Your task to perform on an android device: check storage Image 0: 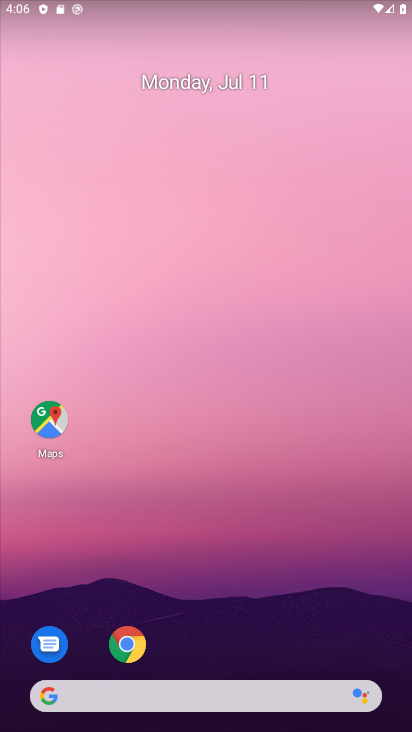
Step 0: drag from (193, 643) to (155, 77)
Your task to perform on an android device: check storage Image 1: 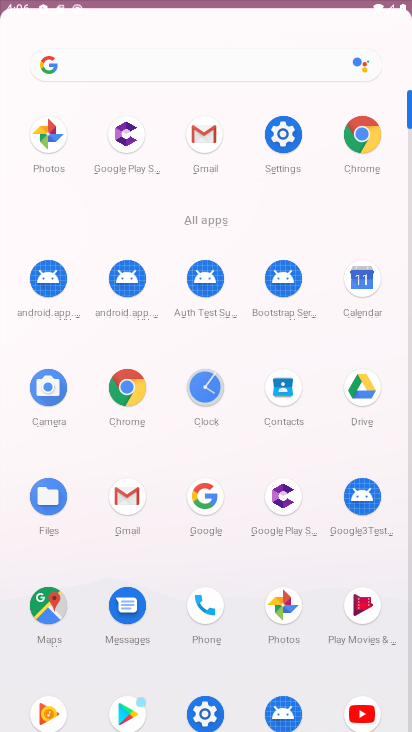
Step 1: click (322, 128)
Your task to perform on an android device: check storage Image 2: 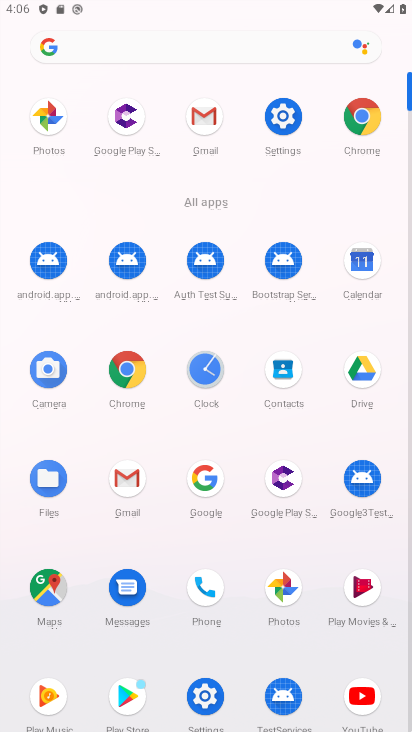
Step 2: click (295, 128)
Your task to perform on an android device: check storage Image 3: 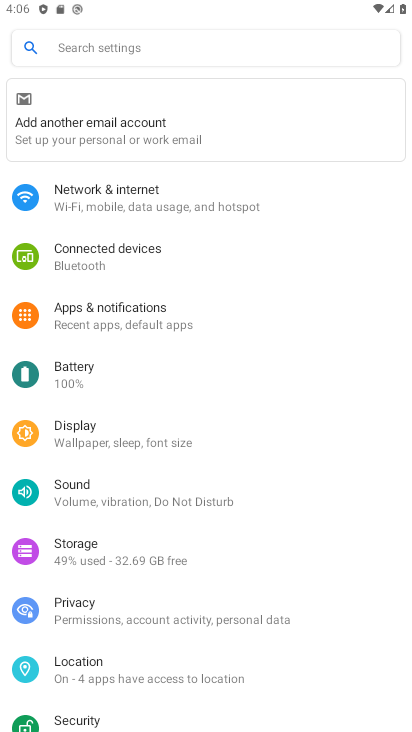
Step 3: click (125, 557)
Your task to perform on an android device: check storage Image 4: 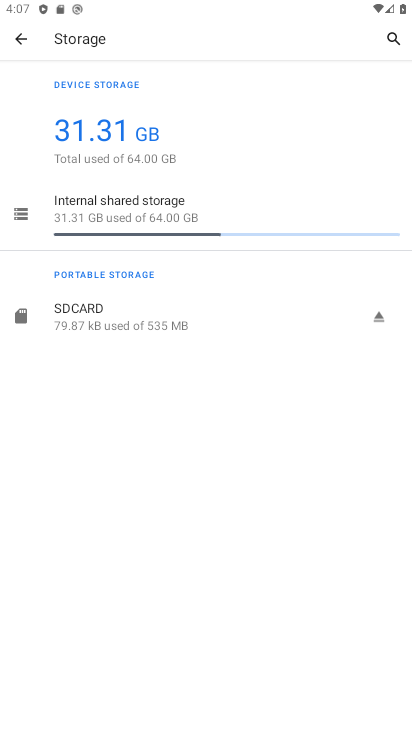
Step 4: click (197, 216)
Your task to perform on an android device: check storage Image 5: 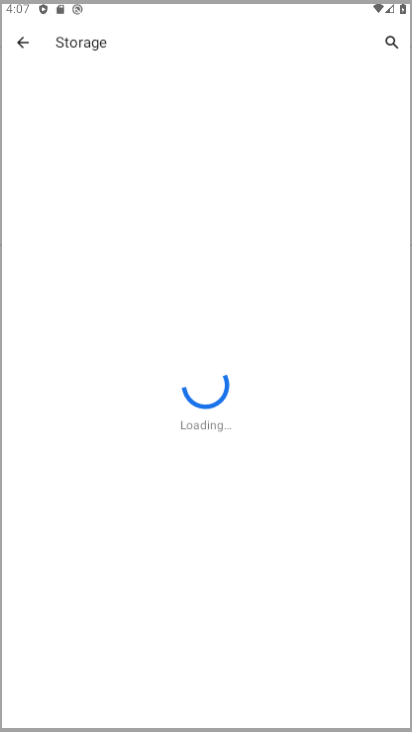
Step 5: task complete